Your task to perform on an android device: star an email in the gmail app Image 0: 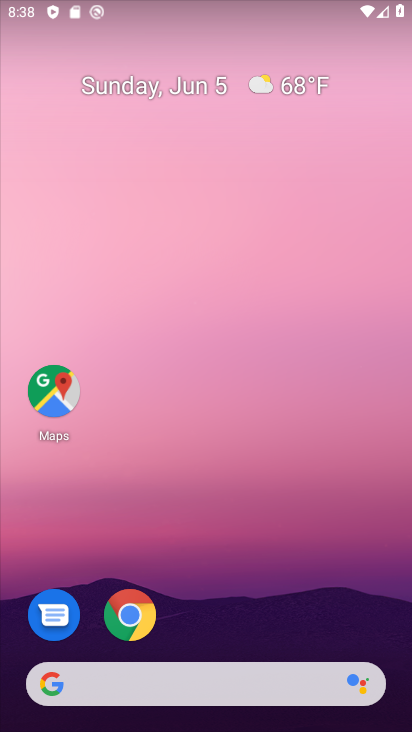
Step 0: drag from (131, 686) to (204, 189)
Your task to perform on an android device: star an email in the gmail app Image 1: 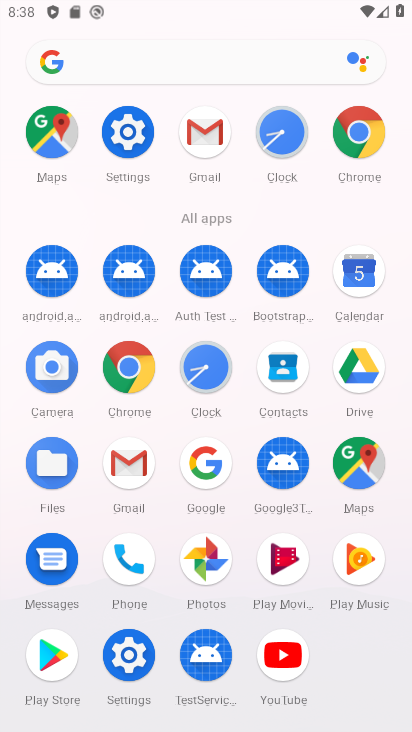
Step 1: click (128, 465)
Your task to perform on an android device: star an email in the gmail app Image 2: 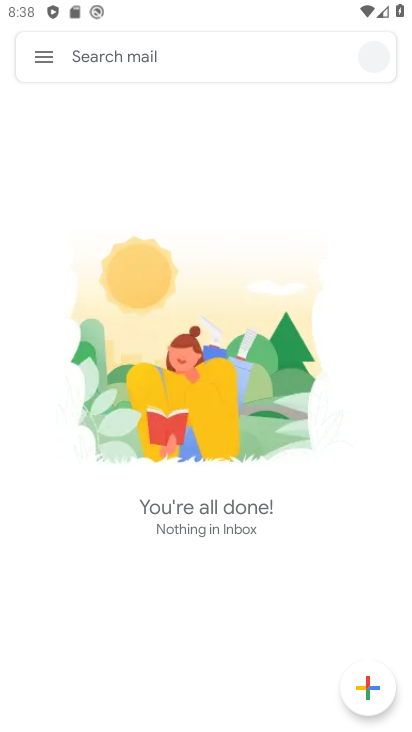
Step 2: click (45, 55)
Your task to perform on an android device: star an email in the gmail app Image 3: 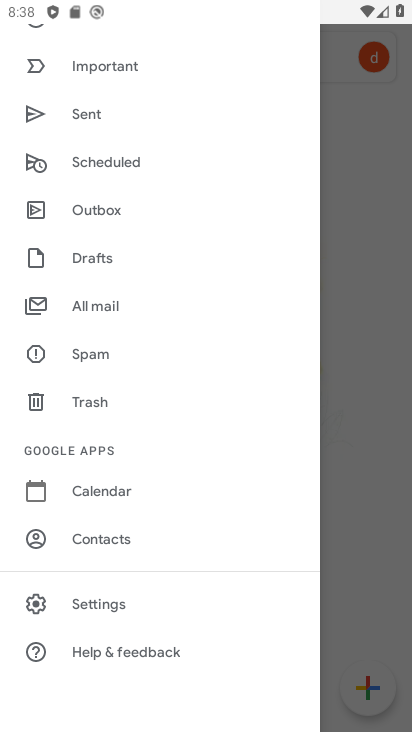
Step 3: click (122, 317)
Your task to perform on an android device: star an email in the gmail app Image 4: 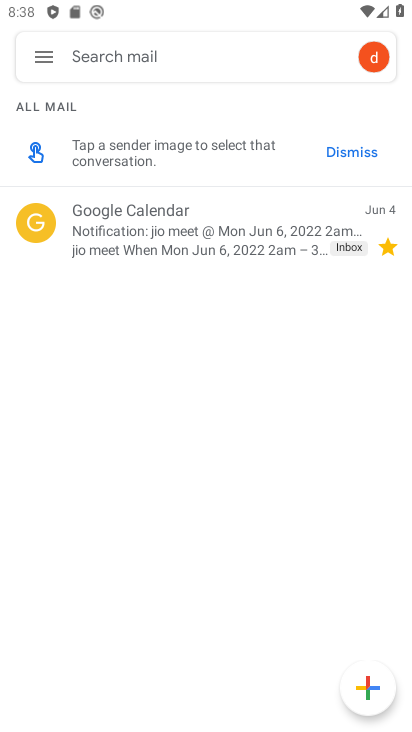
Step 4: click (106, 249)
Your task to perform on an android device: star an email in the gmail app Image 5: 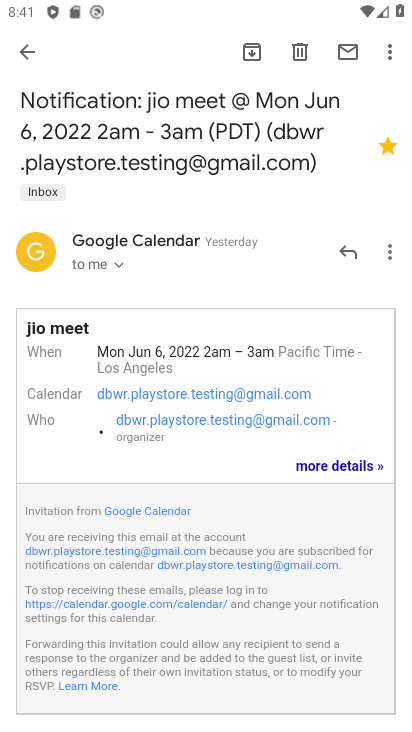
Step 5: task complete